Your task to perform on an android device: change the clock style Image 0: 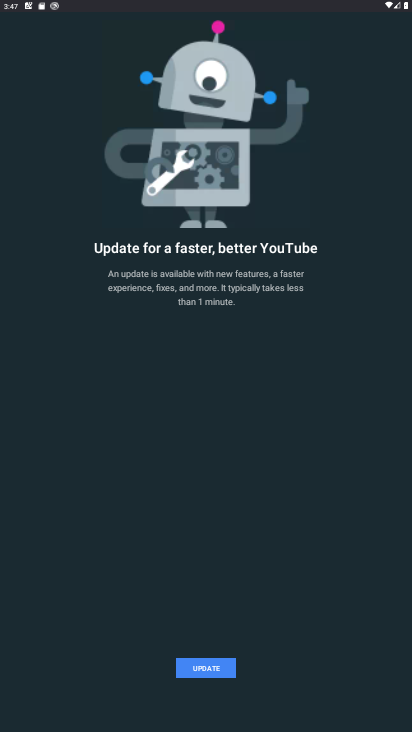
Step 0: press back button
Your task to perform on an android device: change the clock style Image 1: 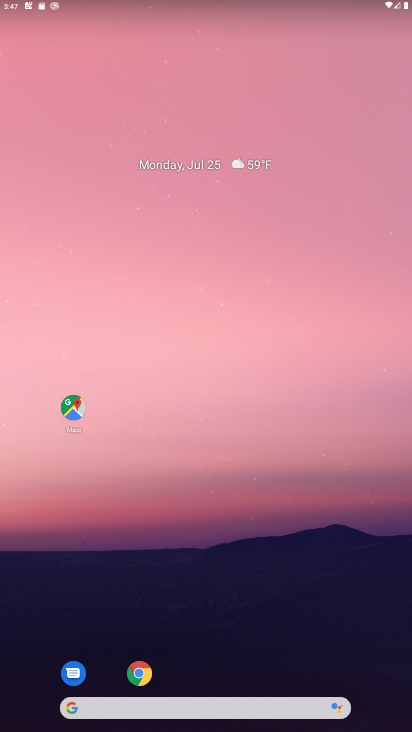
Step 1: drag from (281, 653) to (185, 249)
Your task to perform on an android device: change the clock style Image 2: 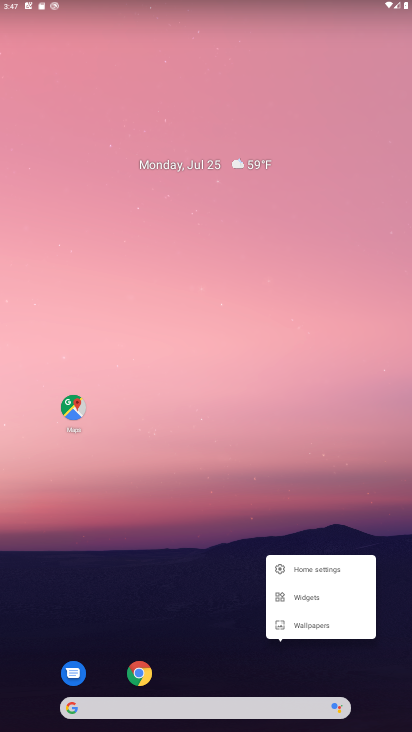
Step 2: click (193, 561)
Your task to perform on an android device: change the clock style Image 3: 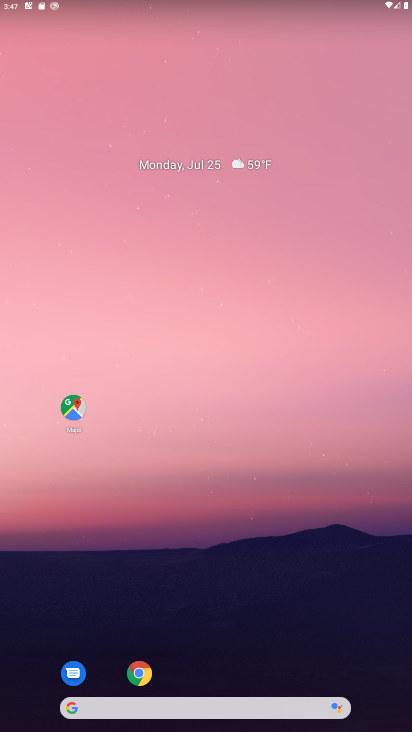
Step 3: drag from (214, 653) to (166, 122)
Your task to perform on an android device: change the clock style Image 4: 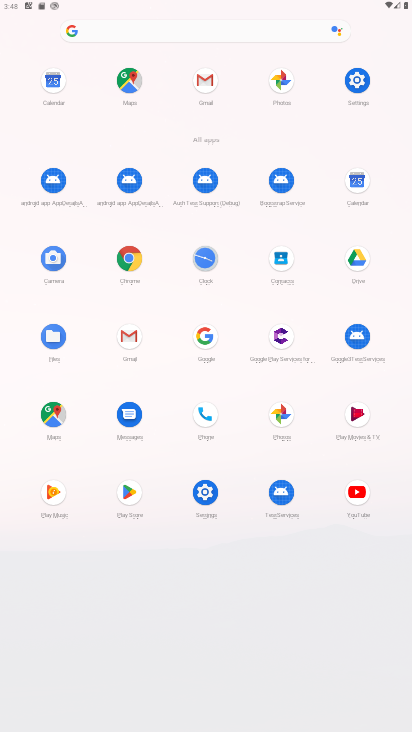
Step 4: click (208, 253)
Your task to perform on an android device: change the clock style Image 5: 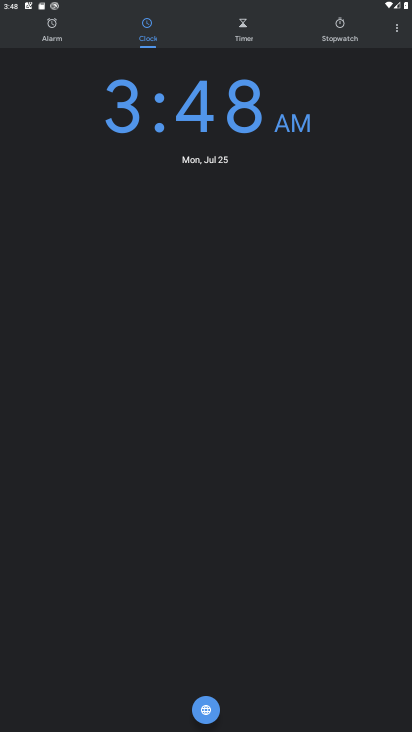
Step 5: click (400, 25)
Your task to perform on an android device: change the clock style Image 6: 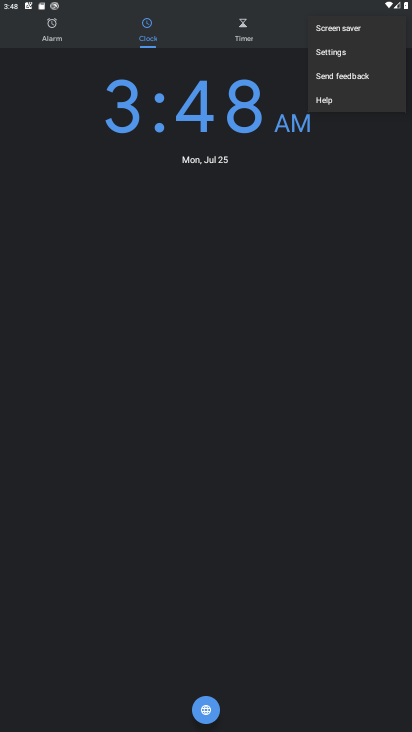
Step 6: click (334, 54)
Your task to perform on an android device: change the clock style Image 7: 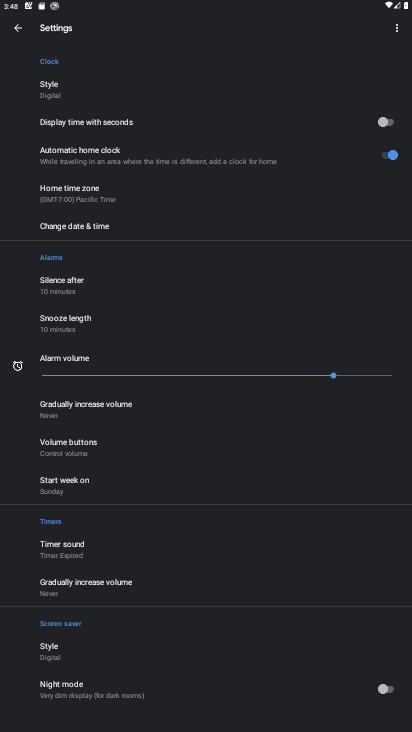
Step 7: click (138, 91)
Your task to perform on an android device: change the clock style Image 8: 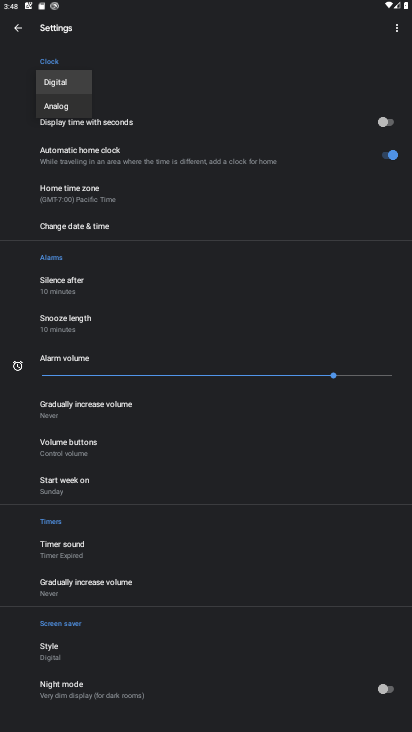
Step 8: click (66, 109)
Your task to perform on an android device: change the clock style Image 9: 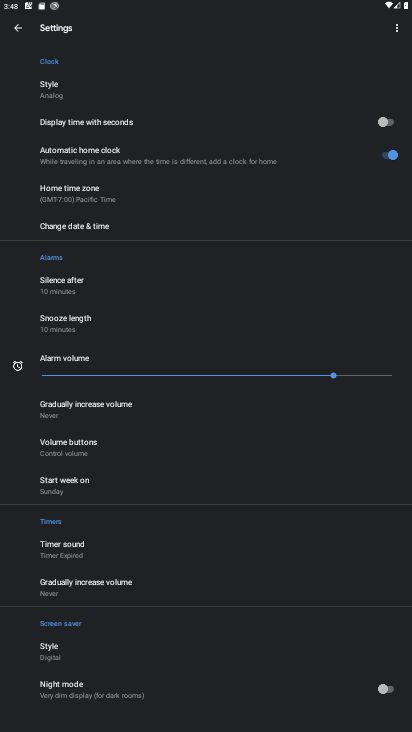
Step 9: task complete